Your task to perform on an android device: move a message to another label in the gmail app Image 0: 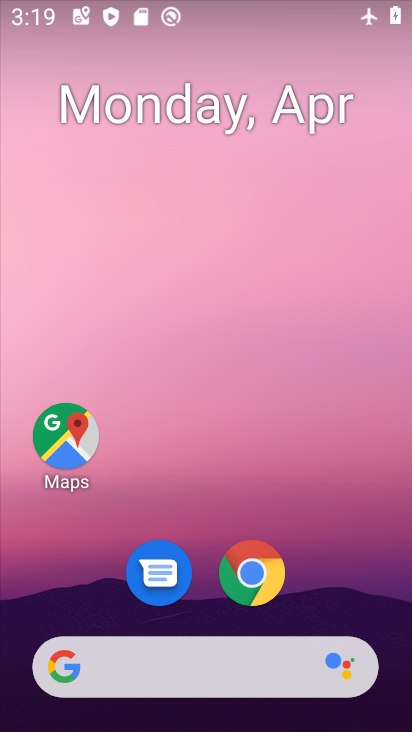
Step 0: drag from (344, 596) to (305, 54)
Your task to perform on an android device: move a message to another label in the gmail app Image 1: 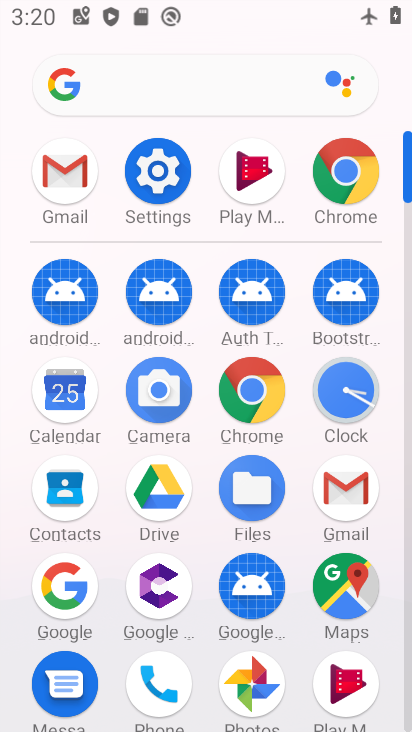
Step 1: click (348, 486)
Your task to perform on an android device: move a message to another label in the gmail app Image 2: 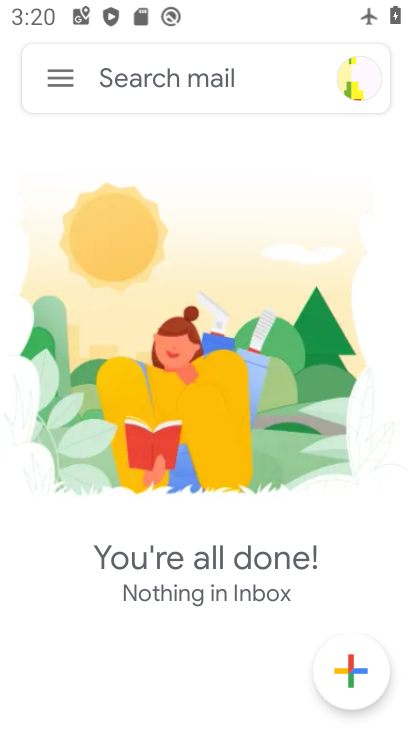
Step 2: click (69, 81)
Your task to perform on an android device: move a message to another label in the gmail app Image 3: 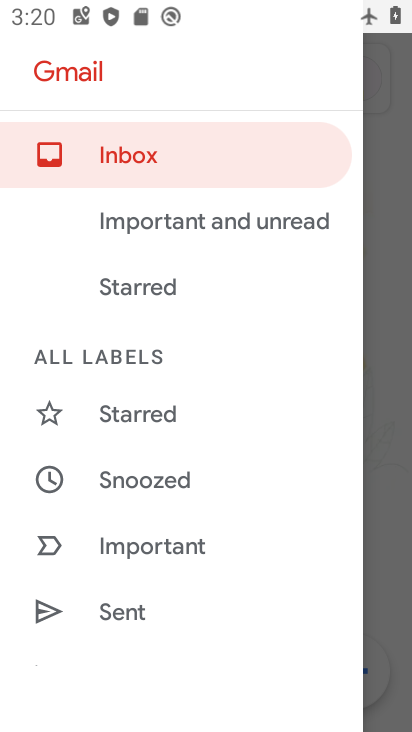
Step 3: drag from (305, 544) to (307, 412)
Your task to perform on an android device: move a message to another label in the gmail app Image 4: 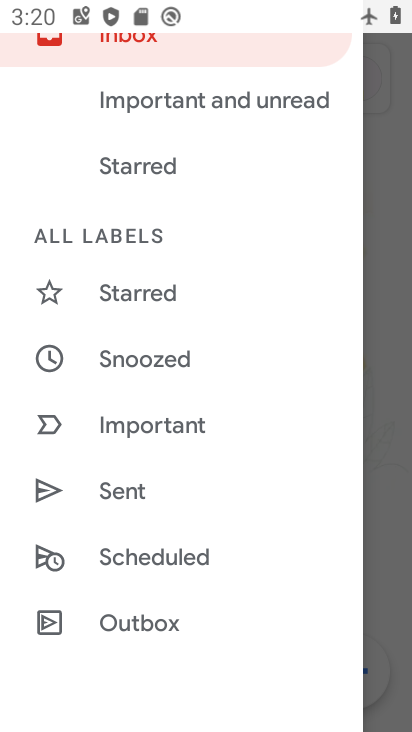
Step 4: drag from (303, 612) to (303, 466)
Your task to perform on an android device: move a message to another label in the gmail app Image 5: 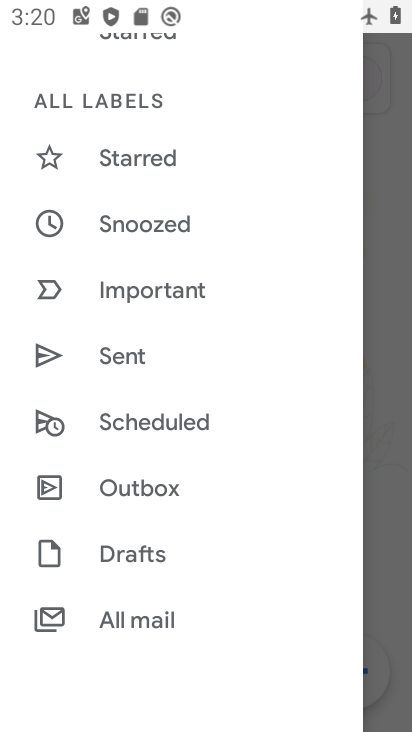
Step 5: drag from (267, 576) to (278, 363)
Your task to perform on an android device: move a message to another label in the gmail app Image 6: 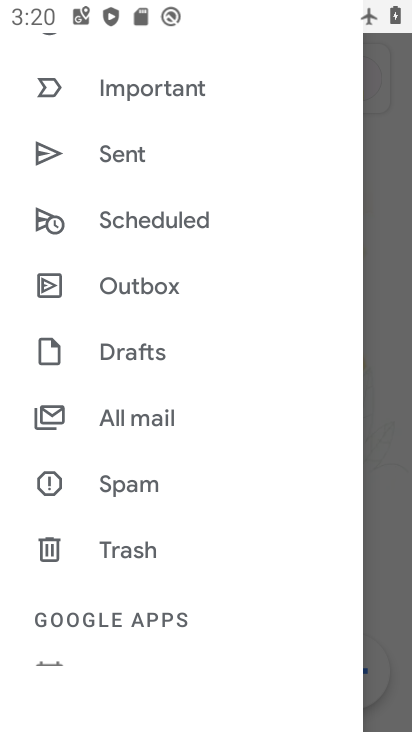
Step 6: drag from (241, 629) to (276, 249)
Your task to perform on an android device: move a message to another label in the gmail app Image 7: 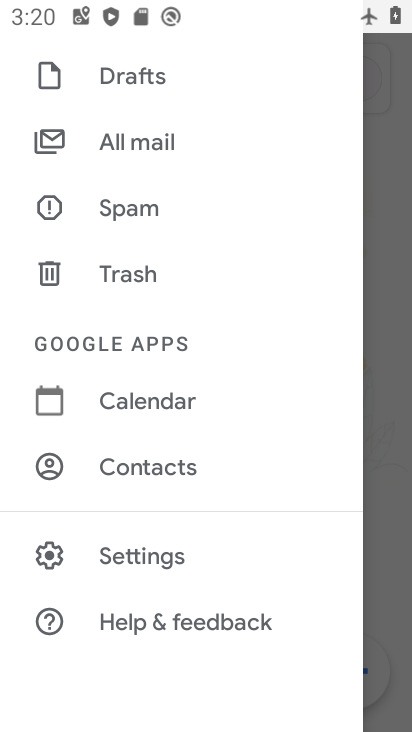
Step 7: drag from (286, 201) to (263, 382)
Your task to perform on an android device: move a message to another label in the gmail app Image 8: 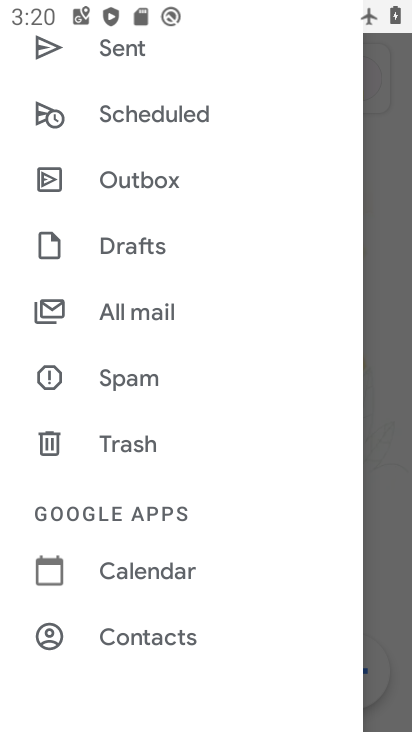
Step 8: drag from (270, 231) to (241, 461)
Your task to perform on an android device: move a message to another label in the gmail app Image 9: 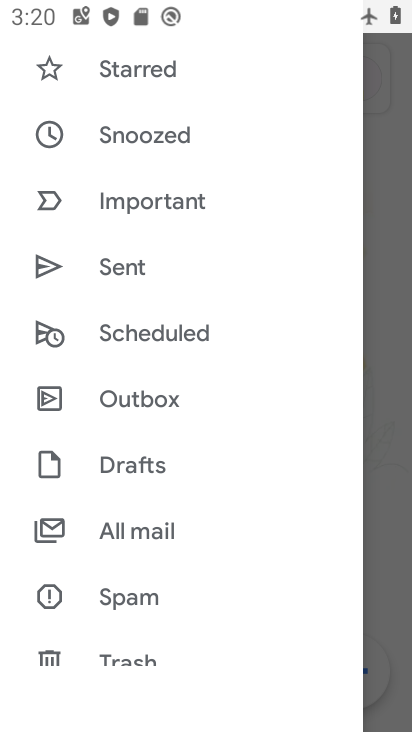
Step 9: drag from (275, 215) to (274, 418)
Your task to perform on an android device: move a message to another label in the gmail app Image 10: 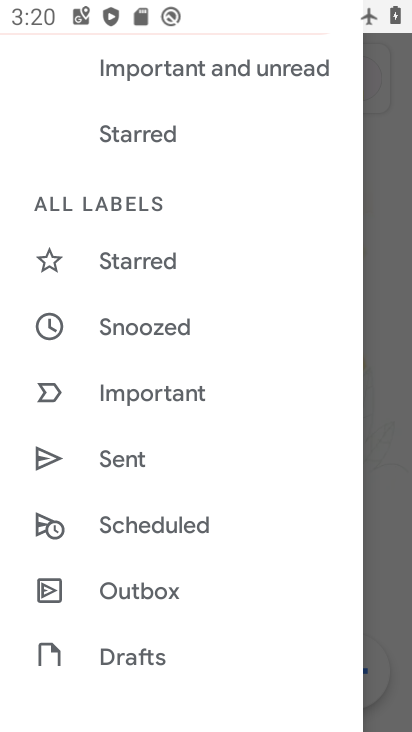
Step 10: drag from (265, 166) to (247, 345)
Your task to perform on an android device: move a message to another label in the gmail app Image 11: 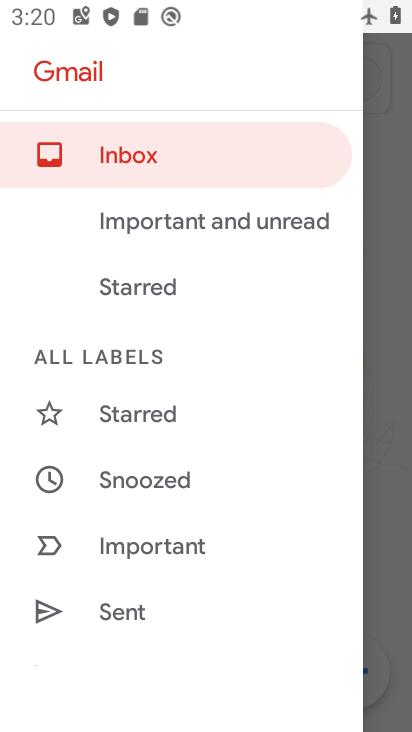
Step 11: click (213, 181)
Your task to perform on an android device: move a message to another label in the gmail app Image 12: 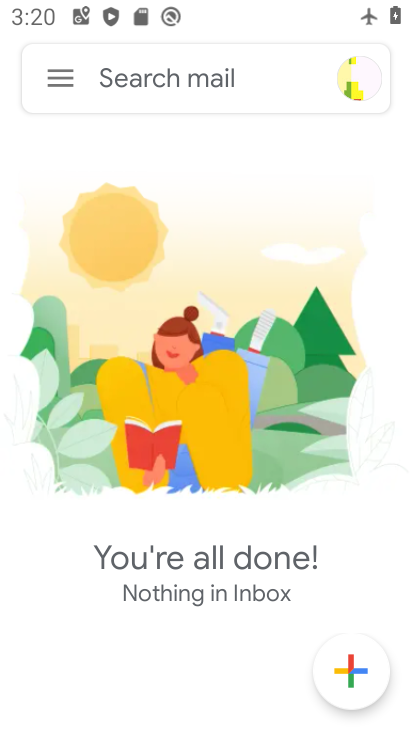
Step 12: task complete